Your task to perform on an android device: add a contact in the contacts app Image 0: 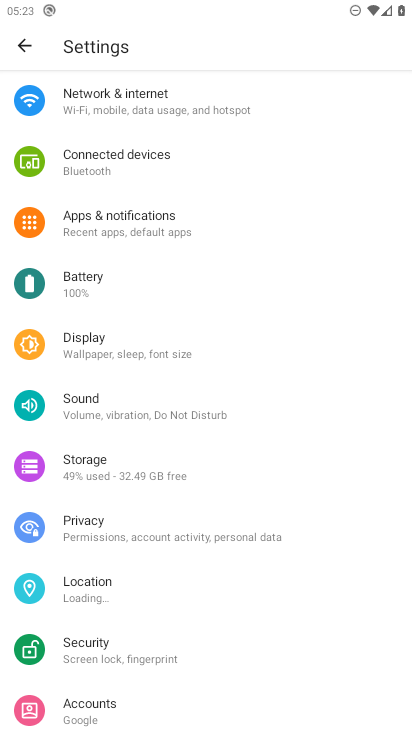
Step 0: press home button
Your task to perform on an android device: add a contact in the contacts app Image 1: 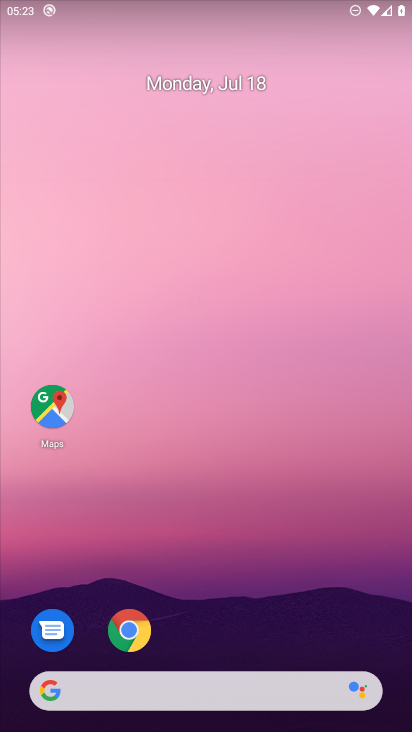
Step 1: drag from (259, 648) to (279, 150)
Your task to perform on an android device: add a contact in the contacts app Image 2: 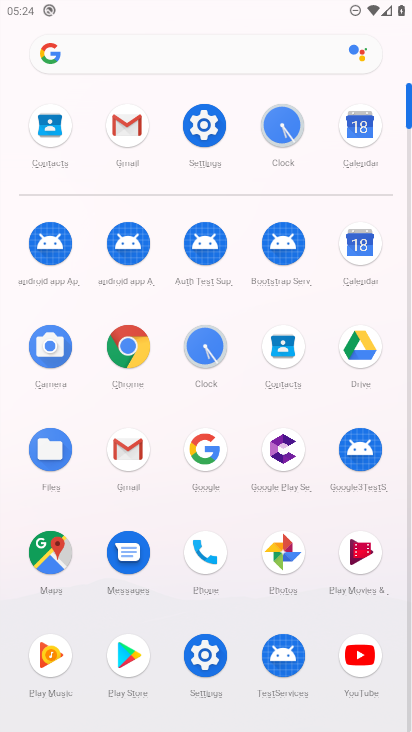
Step 2: click (278, 340)
Your task to perform on an android device: add a contact in the contacts app Image 3: 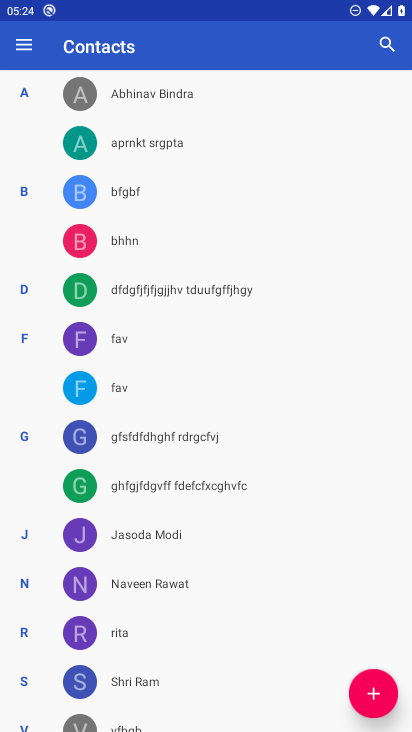
Step 3: click (368, 690)
Your task to perform on an android device: add a contact in the contacts app Image 4: 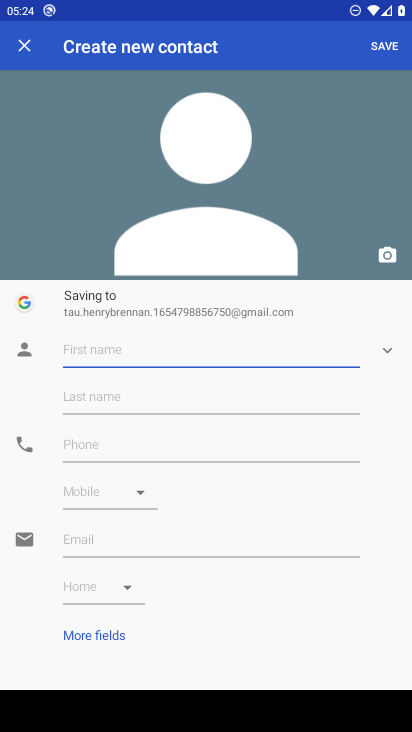
Step 4: type "vdgfg"
Your task to perform on an android device: add a contact in the contacts app Image 5: 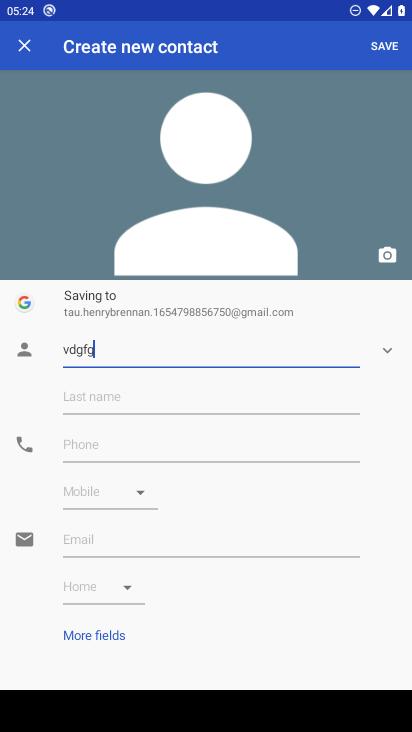
Step 5: type ""
Your task to perform on an android device: add a contact in the contacts app Image 6: 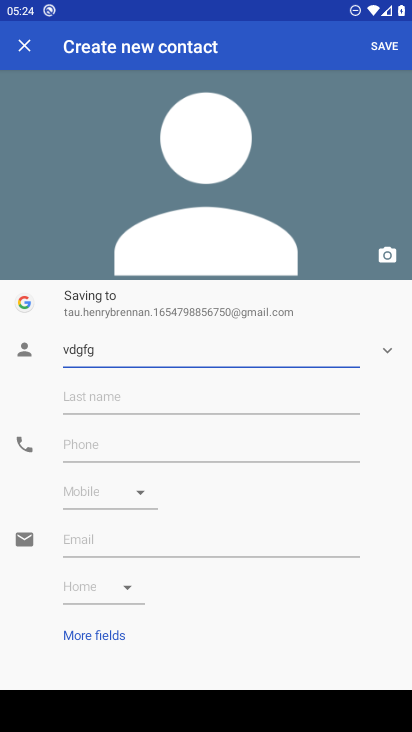
Step 6: click (389, 43)
Your task to perform on an android device: add a contact in the contacts app Image 7: 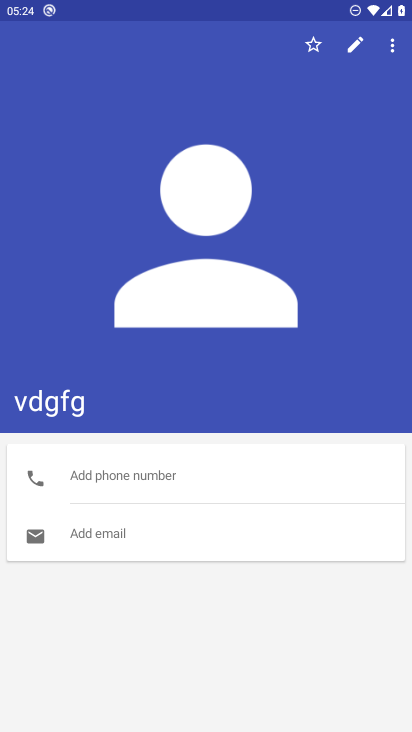
Step 7: task complete